Your task to perform on an android device: uninstall "eBay: The shopping marketplace" Image 0: 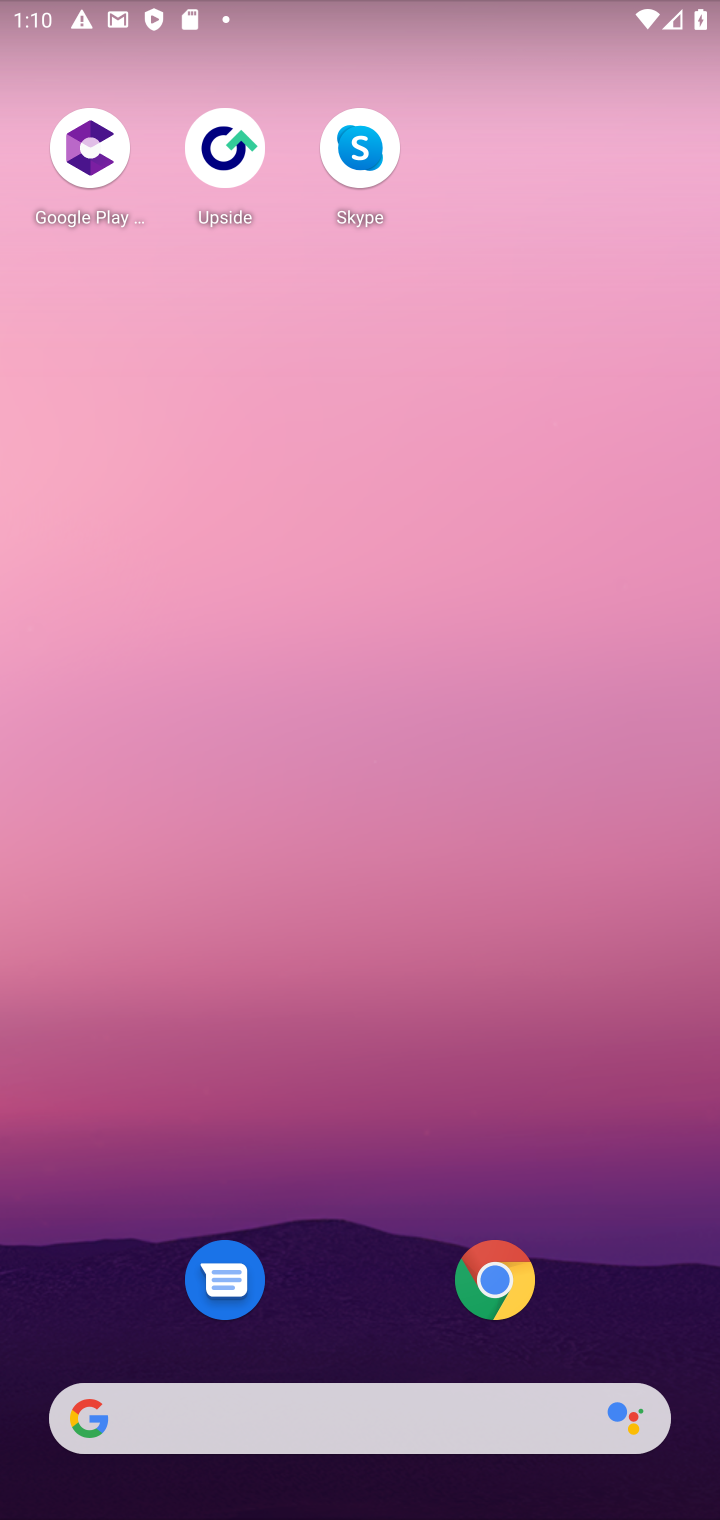
Step 0: drag from (349, 1271) to (581, 172)
Your task to perform on an android device: uninstall "eBay: The shopping marketplace" Image 1: 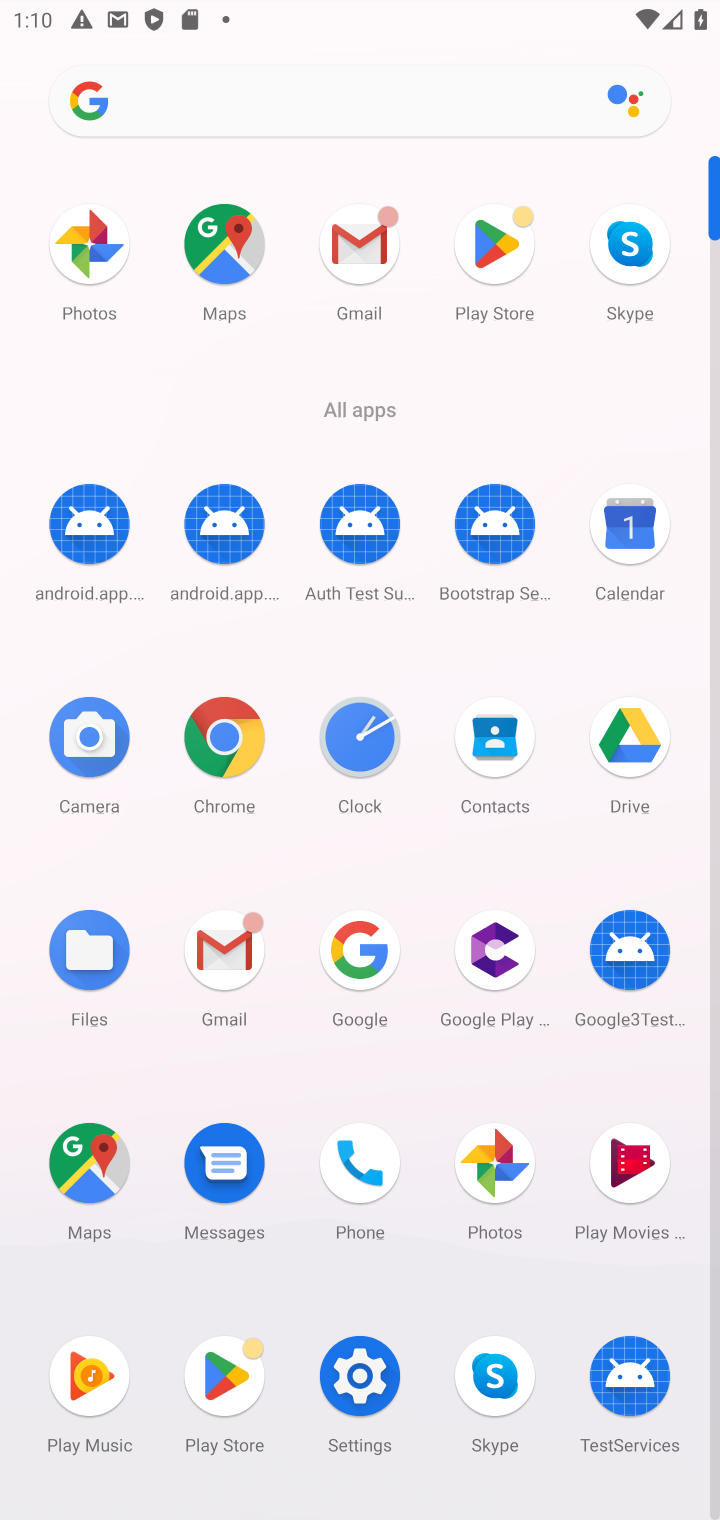
Step 1: click (503, 227)
Your task to perform on an android device: uninstall "eBay: The shopping marketplace" Image 2: 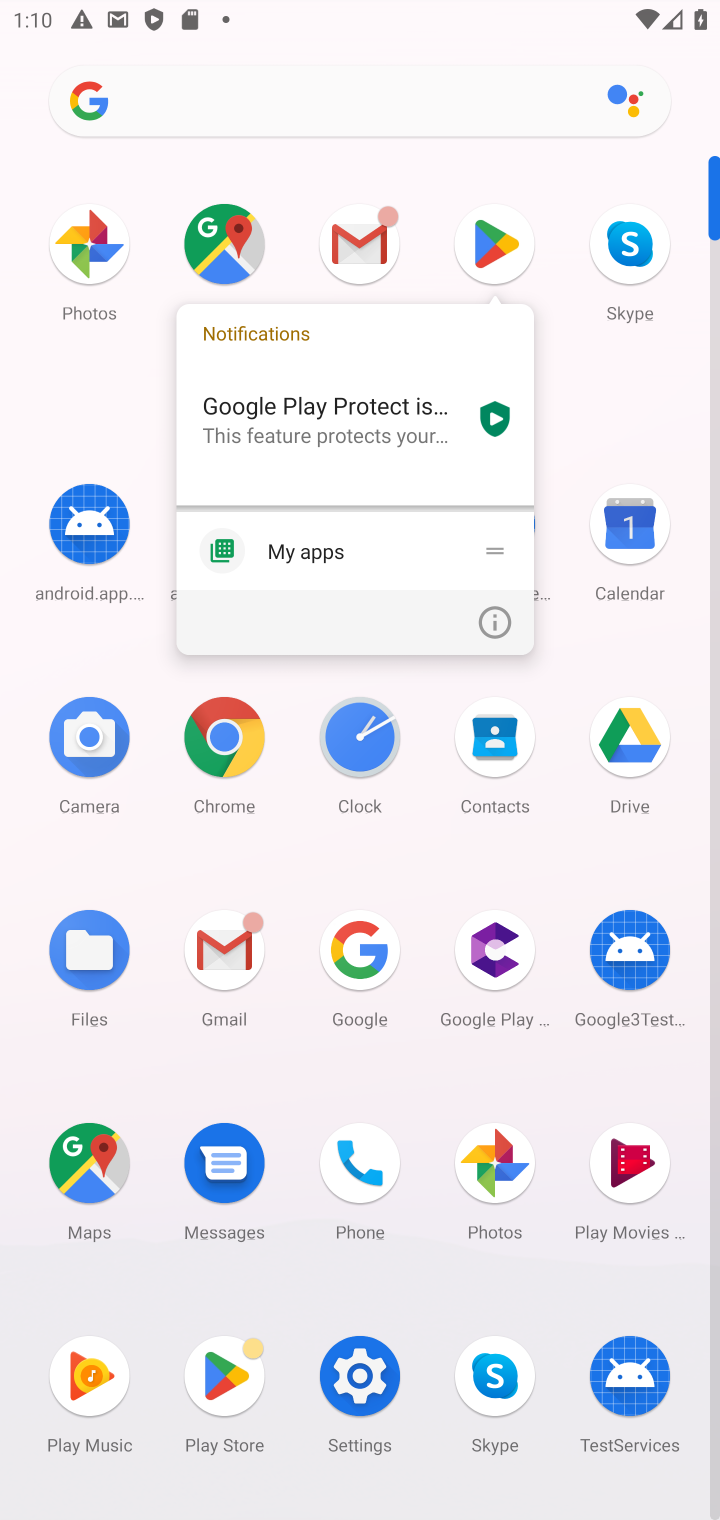
Step 2: click (494, 224)
Your task to perform on an android device: uninstall "eBay: The shopping marketplace" Image 3: 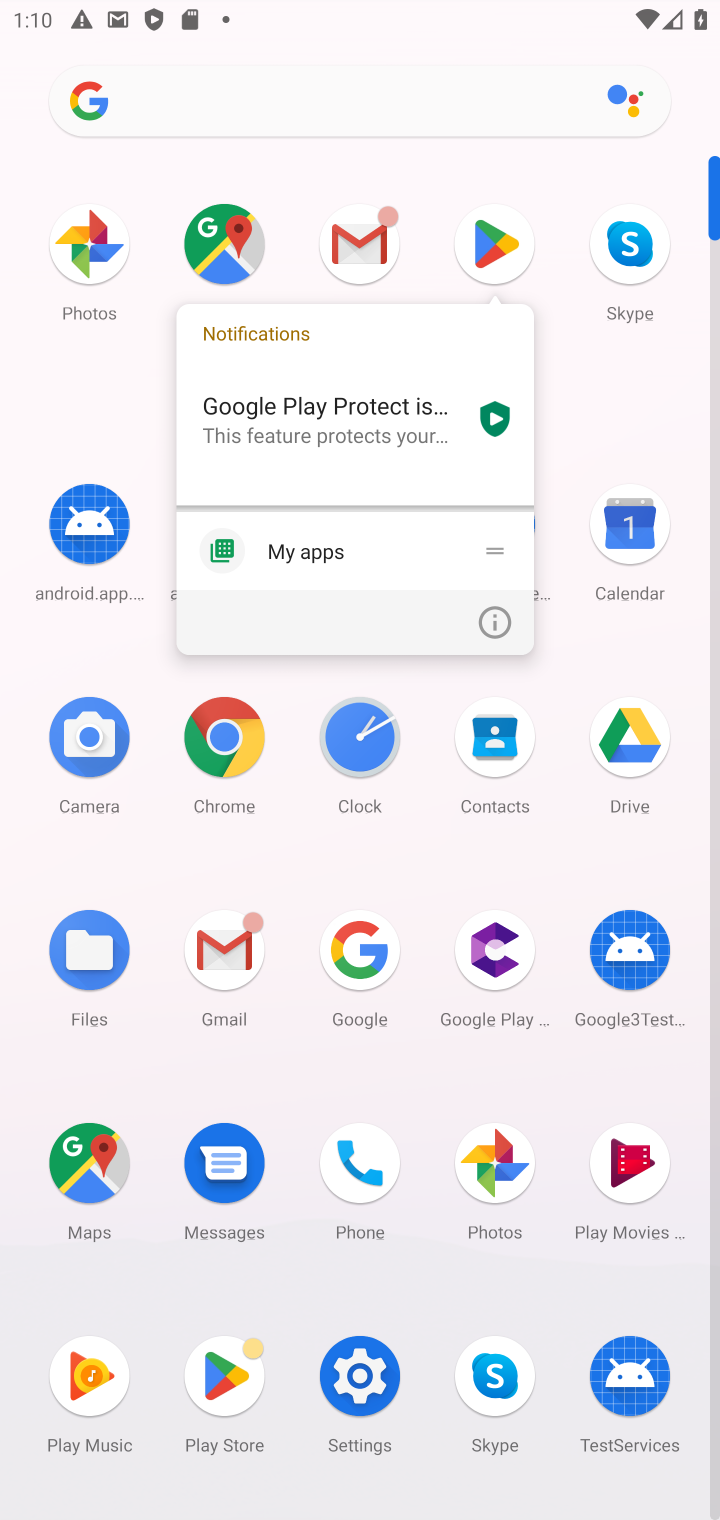
Step 3: click (489, 237)
Your task to perform on an android device: uninstall "eBay: The shopping marketplace" Image 4: 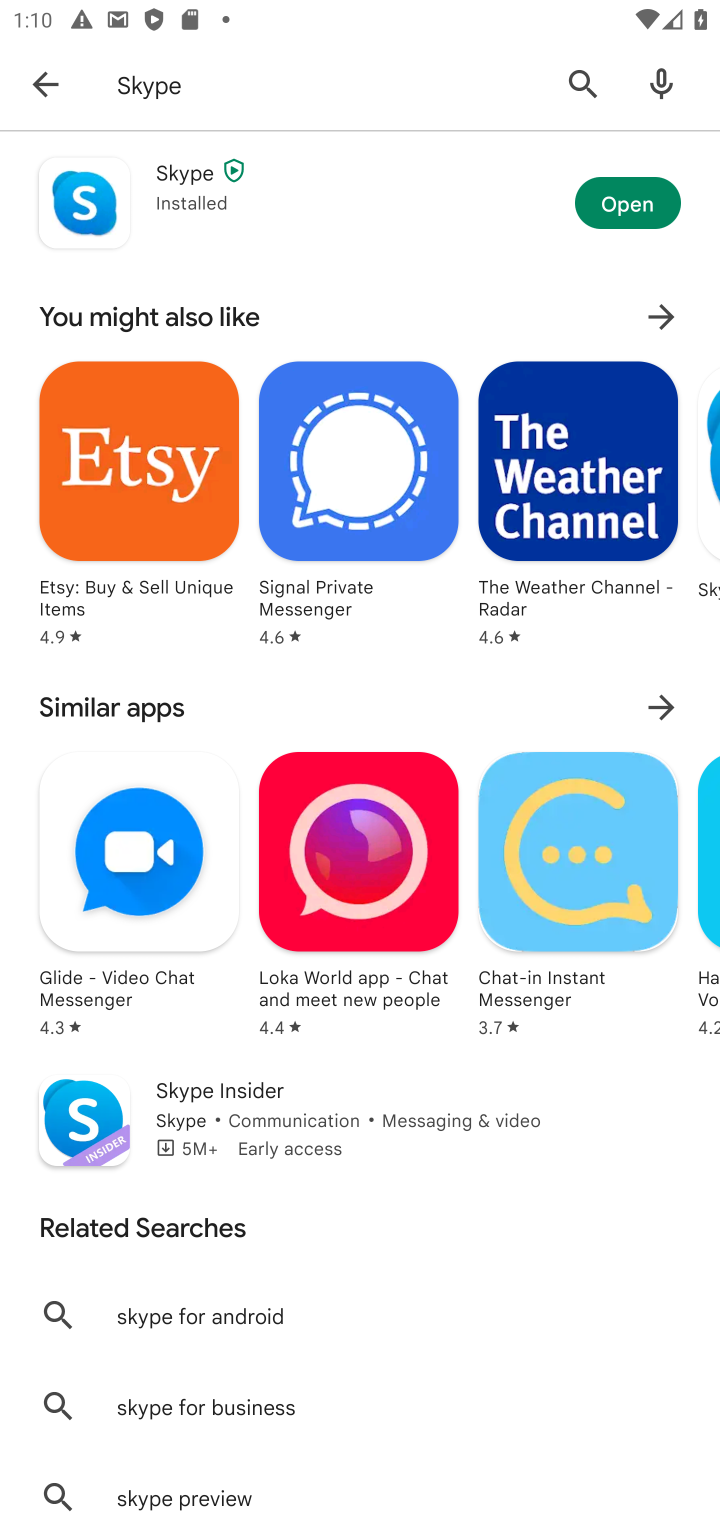
Step 4: click (221, 80)
Your task to perform on an android device: uninstall "eBay: The shopping marketplace" Image 5: 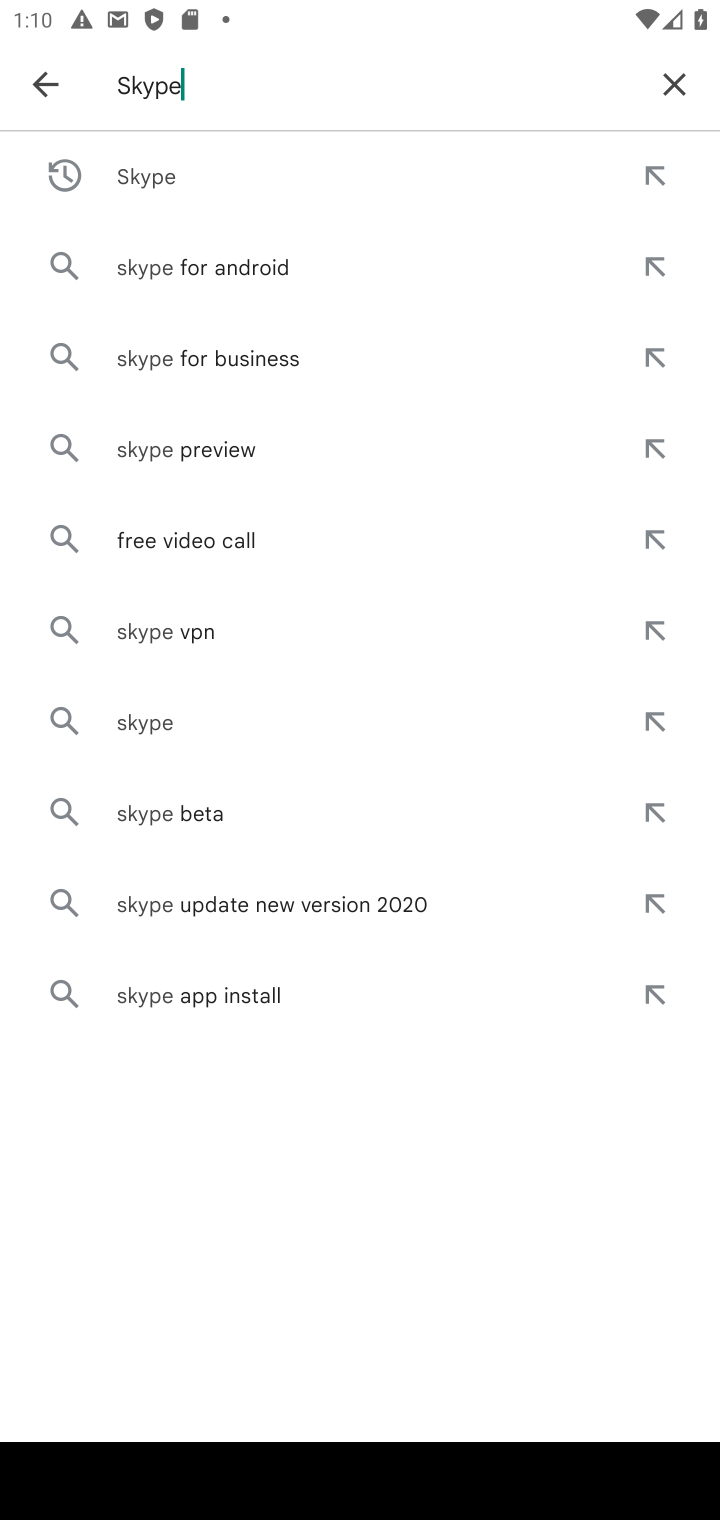
Step 5: click (681, 75)
Your task to perform on an android device: uninstall "eBay: The shopping marketplace" Image 6: 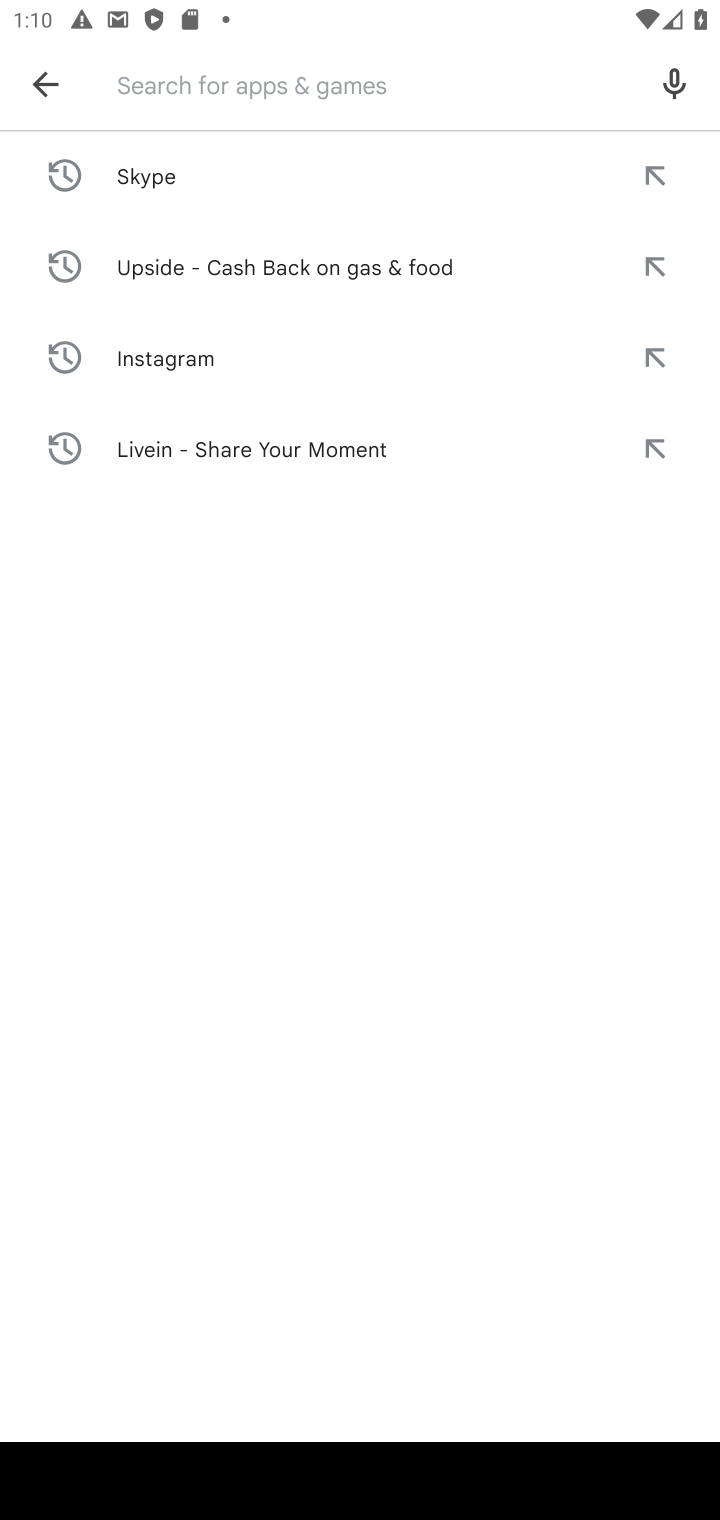
Step 6: type "eBay: The shopping marketplace"
Your task to perform on an android device: uninstall "eBay: The shopping marketplace" Image 7: 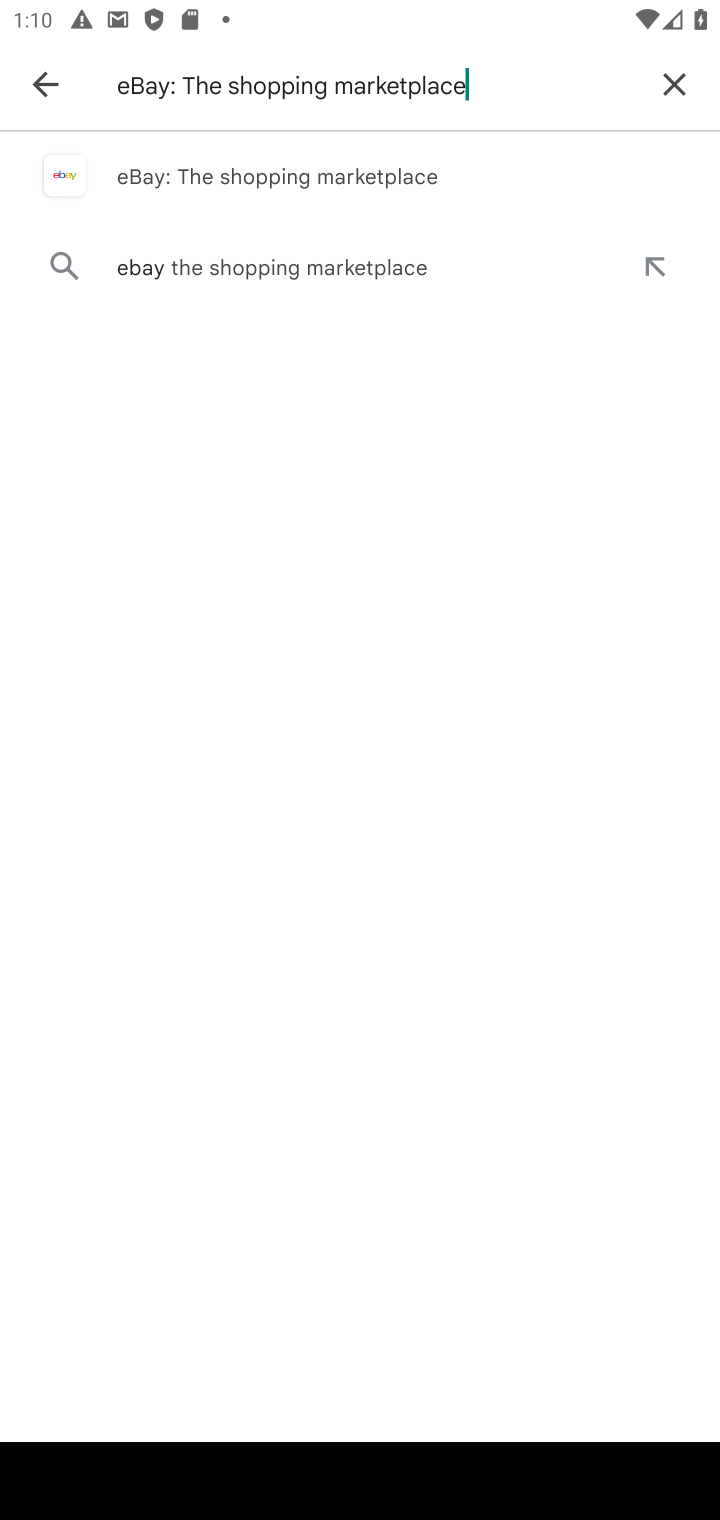
Step 7: press enter
Your task to perform on an android device: uninstall "eBay: The shopping marketplace" Image 8: 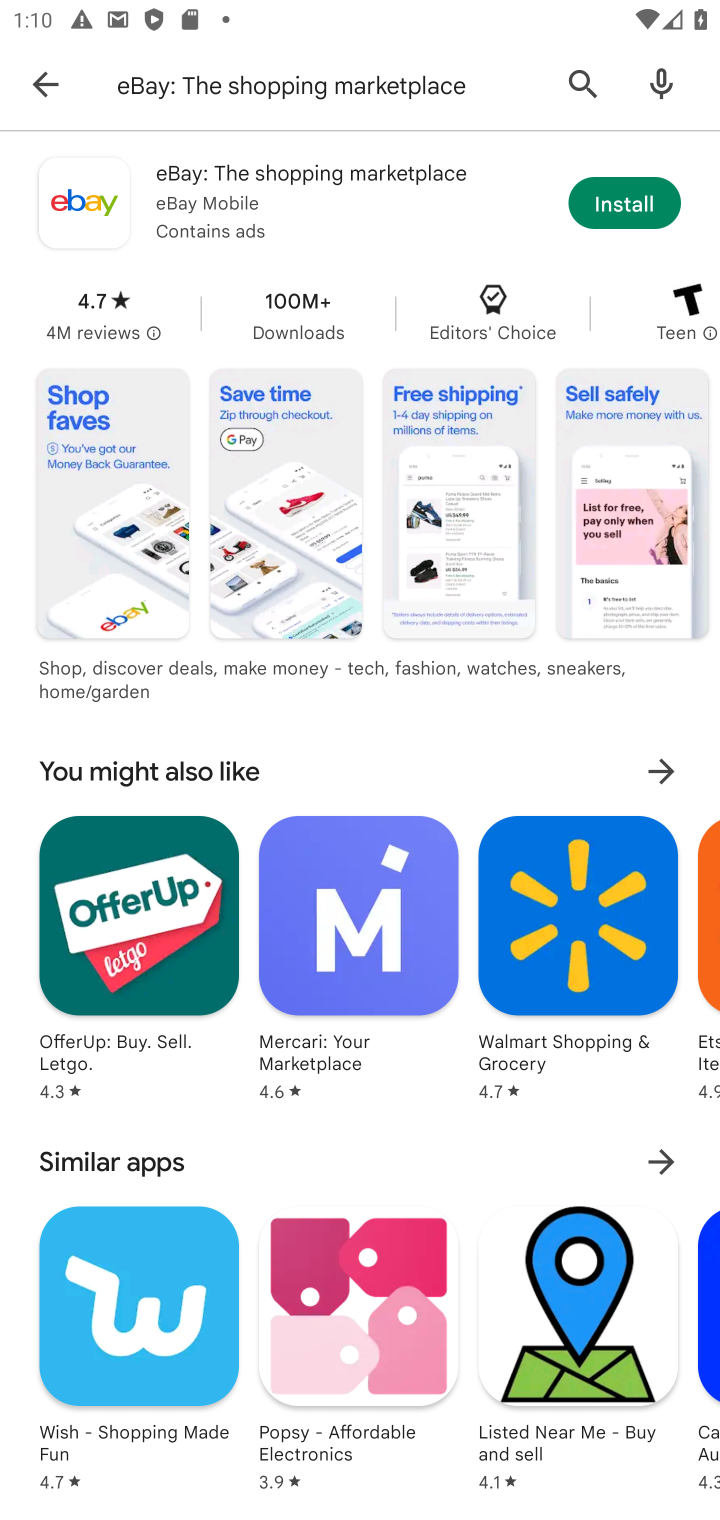
Step 8: task complete